Your task to perform on an android device: Open Google Maps Image 0: 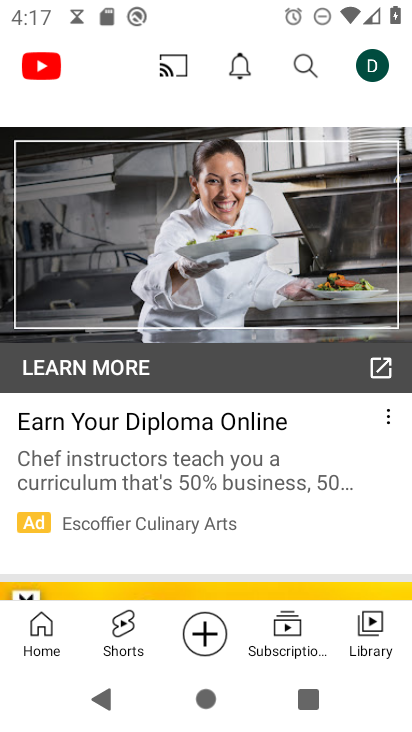
Step 0: press home button
Your task to perform on an android device: Open Google Maps Image 1: 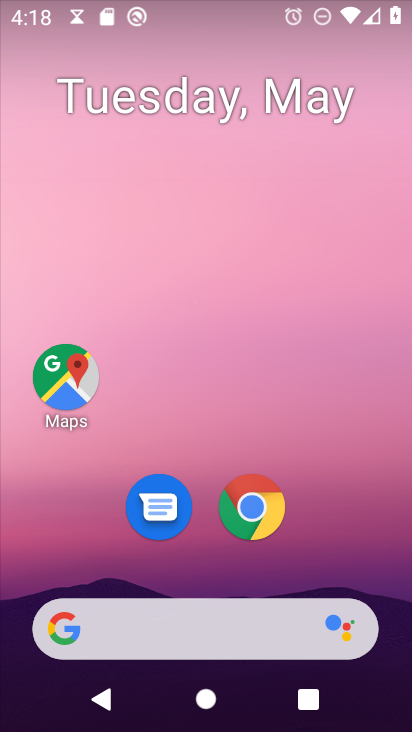
Step 1: click (74, 380)
Your task to perform on an android device: Open Google Maps Image 2: 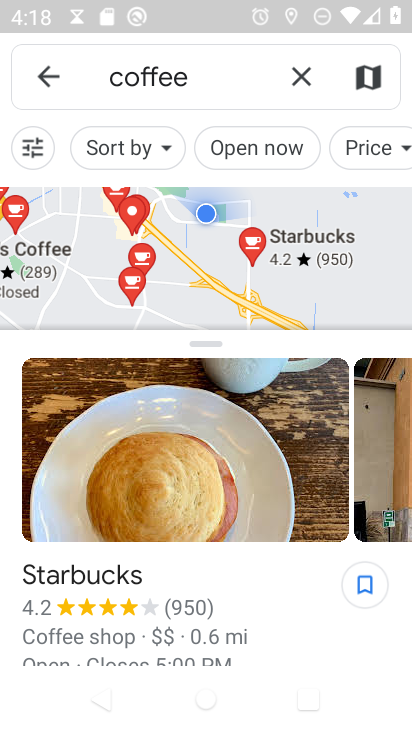
Step 2: click (55, 84)
Your task to perform on an android device: Open Google Maps Image 3: 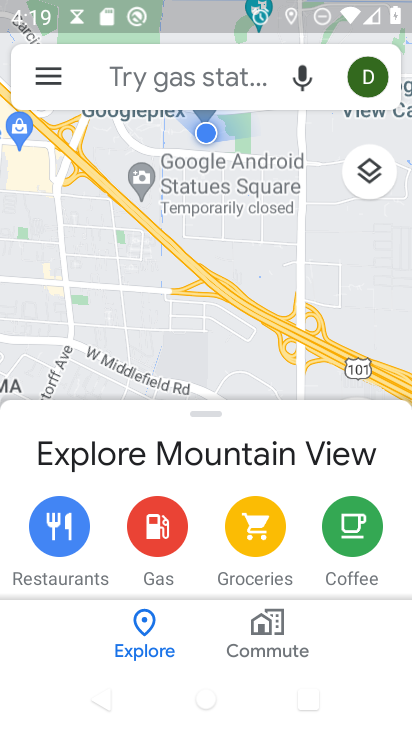
Step 3: task complete